Your task to perform on an android device: uninstall "Google Pay: Save, Pay, Manage" Image 0: 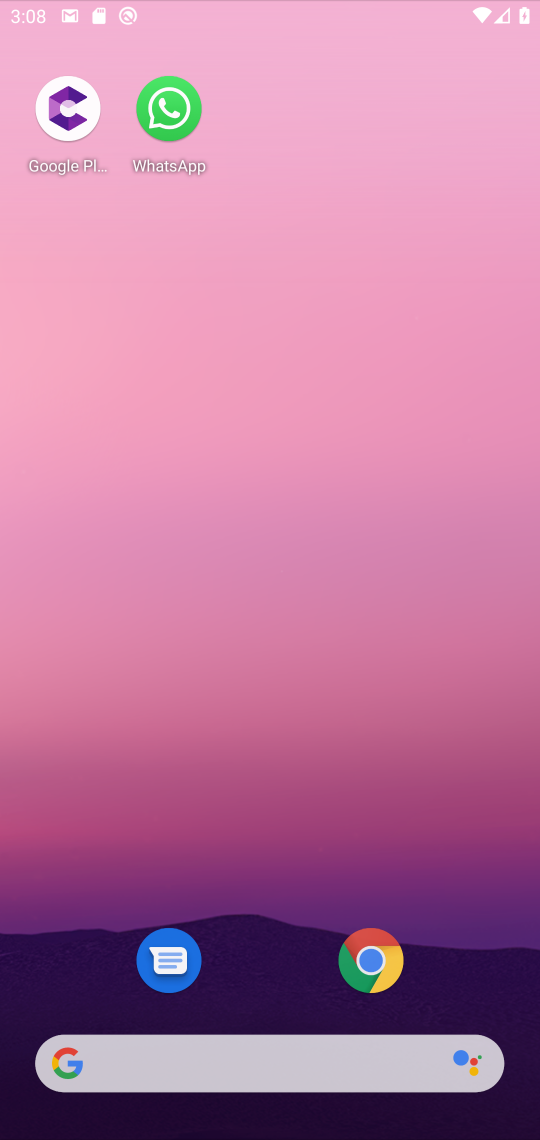
Step 0: press home button
Your task to perform on an android device: uninstall "Google Pay: Save, Pay, Manage" Image 1: 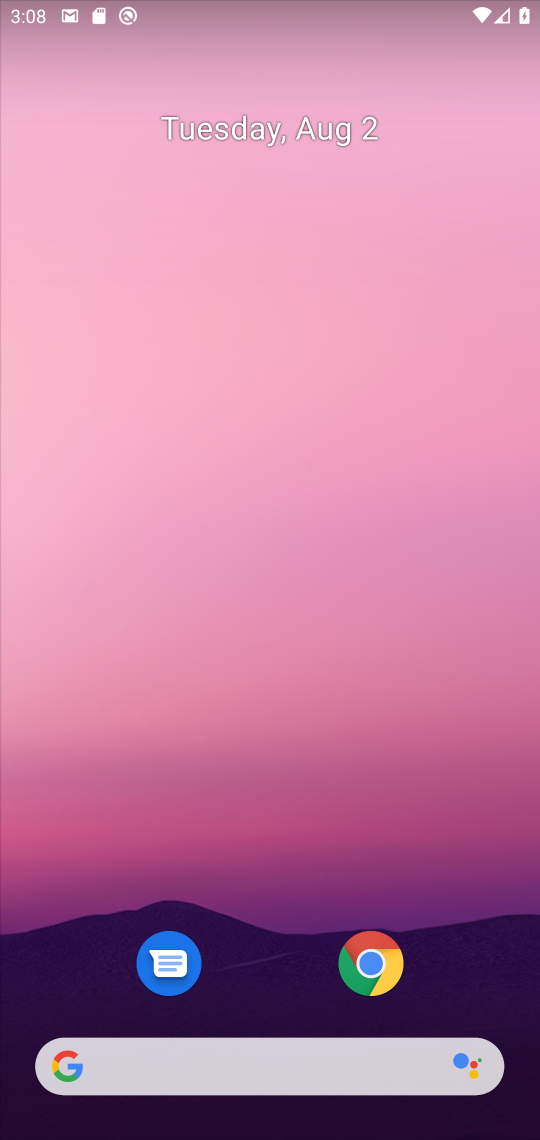
Step 1: drag from (268, 952) to (236, 82)
Your task to perform on an android device: uninstall "Google Pay: Save, Pay, Manage" Image 2: 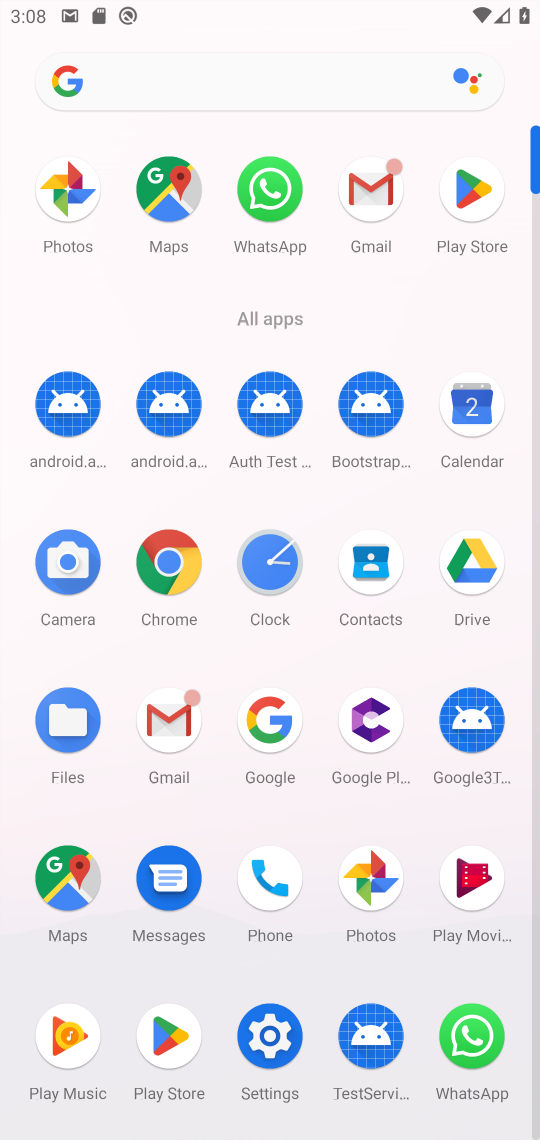
Step 2: click (483, 183)
Your task to perform on an android device: uninstall "Google Pay: Save, Pay, Manage" Image 3: 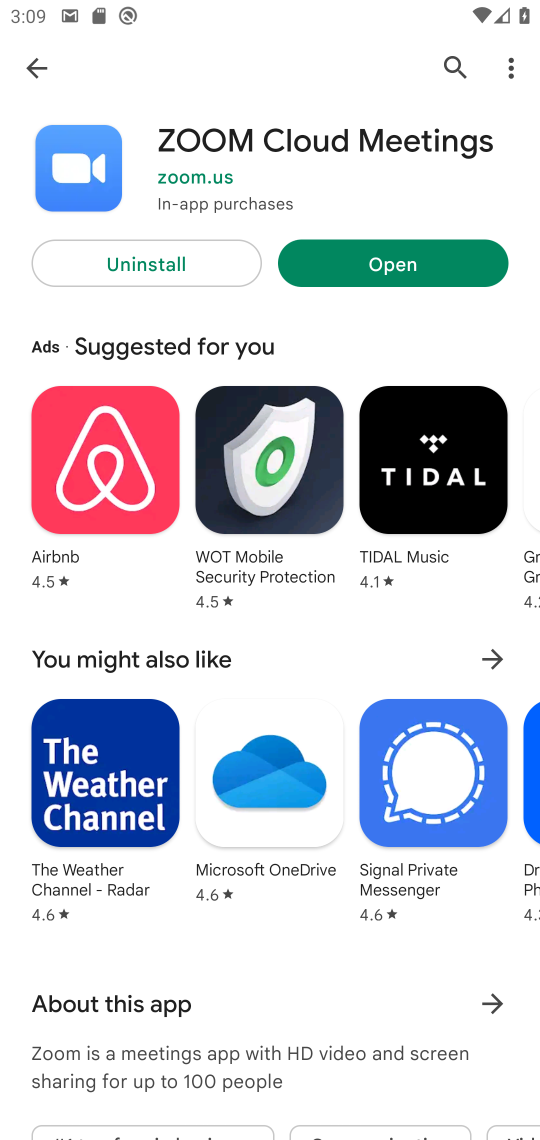
Step 3: click (462, 72)
Your task to perform on an android device: uninstall "Google Pay: Save, Pay, Manage" Image 4: 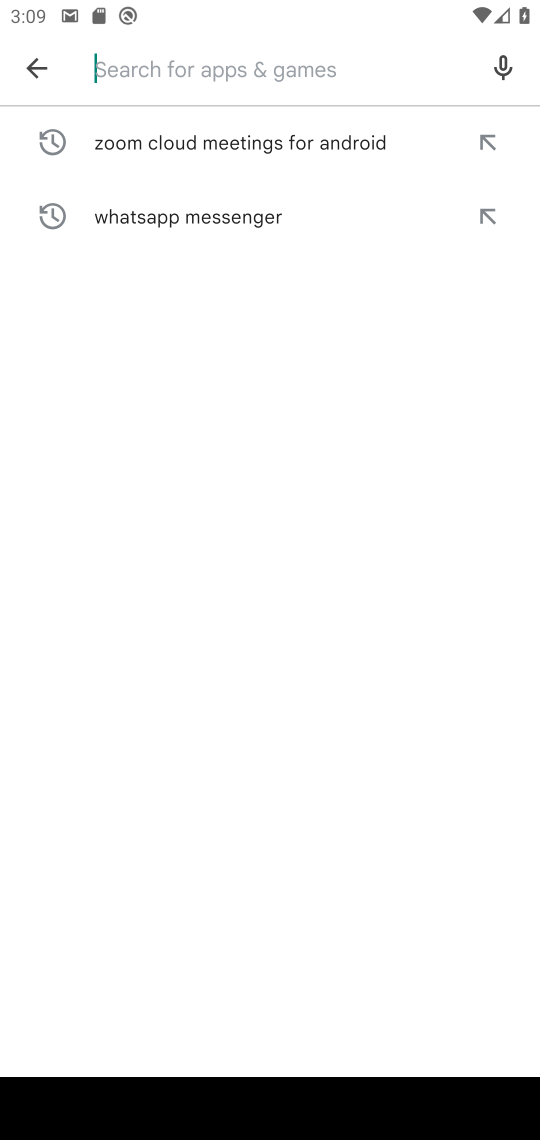
Step 4: type "google pay: save, pay, manage"
Your task to perform on an android device: uninstall "Google Pay: Save, Pay, Manage" Image 5: 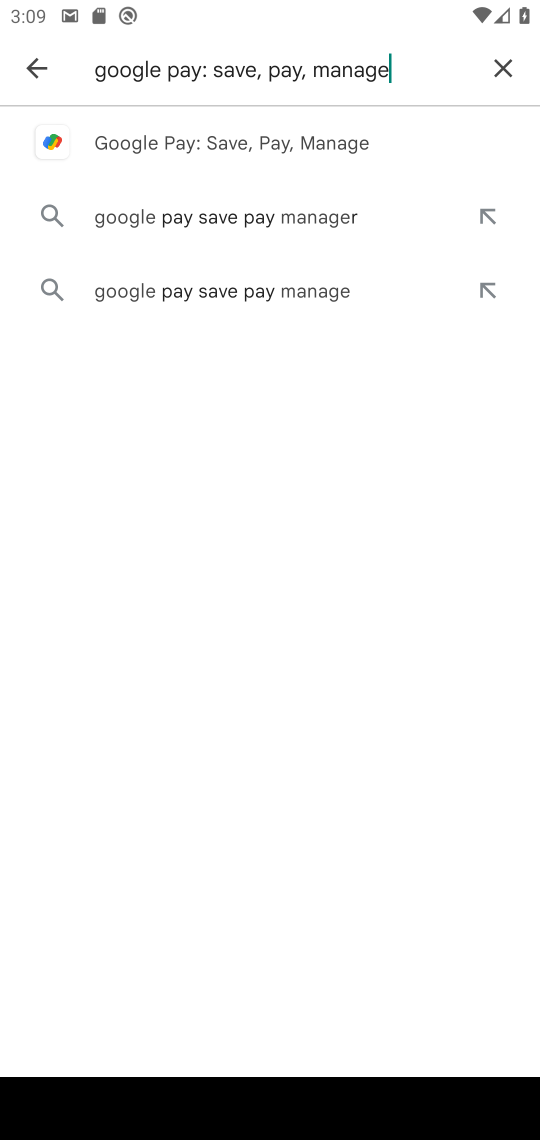
Step 5: click (312, 149)
Your task to perform on an android device: uninstall "Google Pay: Save, Pay, Manage" Image 6: 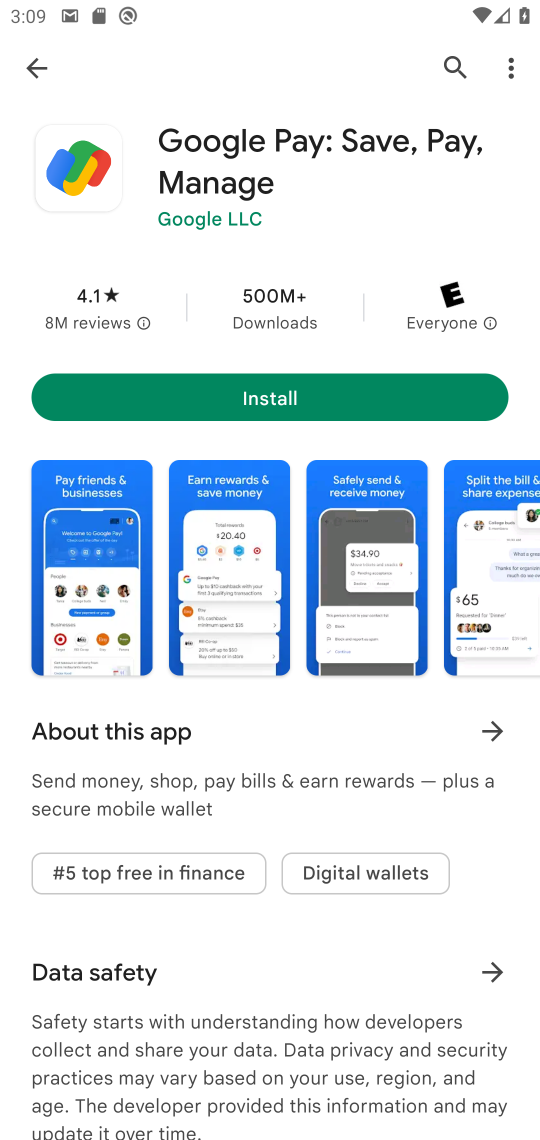
Step 6: task complete